Your task to perform on an android device: Go to display settings Image 0: 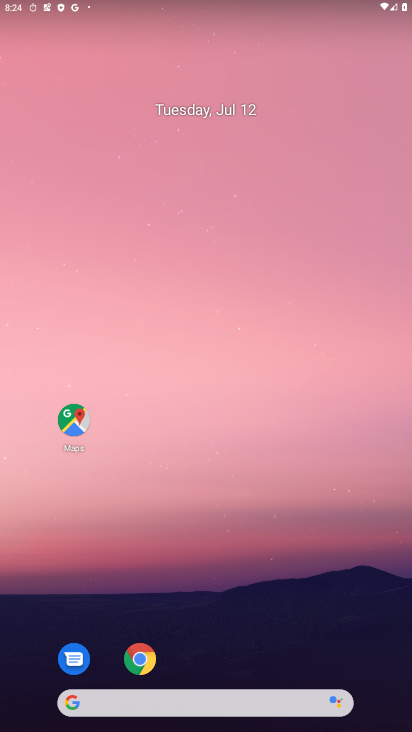
Step 0: drag from (247, 612) to (241, 93)
Your task to perform on an android device: Go to display settings Image 1: 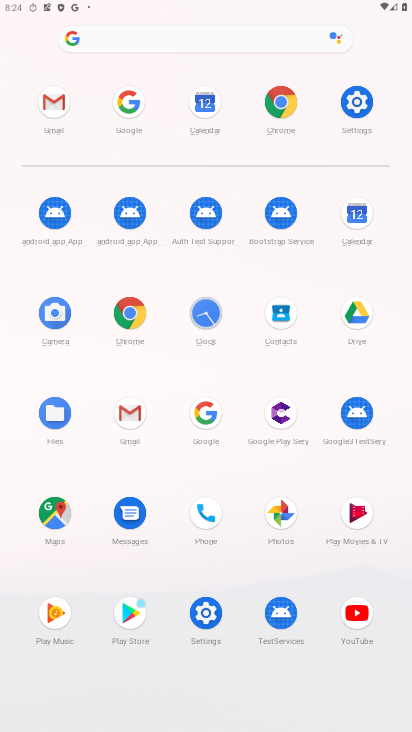
Step 1: click (203, 617)
Your task to perform on an android device: Go to display settings Image 2: 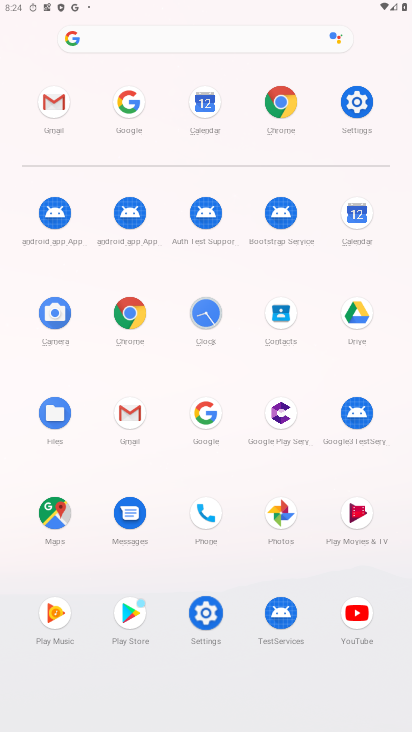
Step 2: click (208, 617)
Your task to perform on an android device: Go to display settings Image 3: 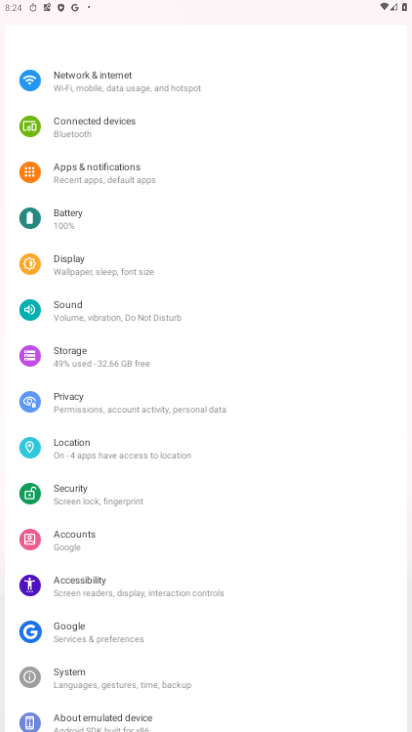
Step 3: click (210, 614)
Your task to perform on an android device: Go to display settings Image 4: 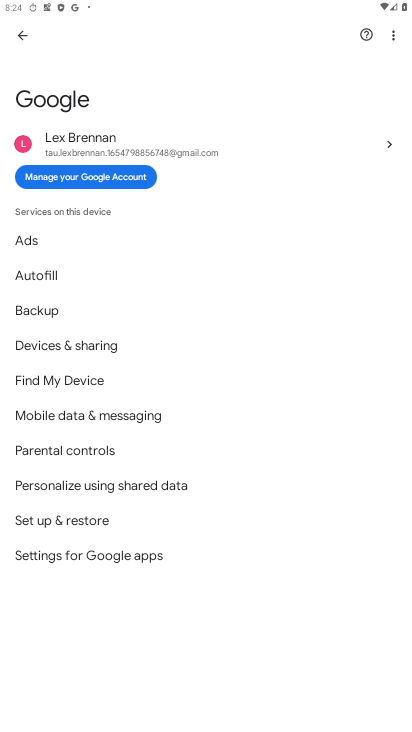
Step 4: click (19, 28)
Your task to perform on an android device: Go to display settings Image 5: 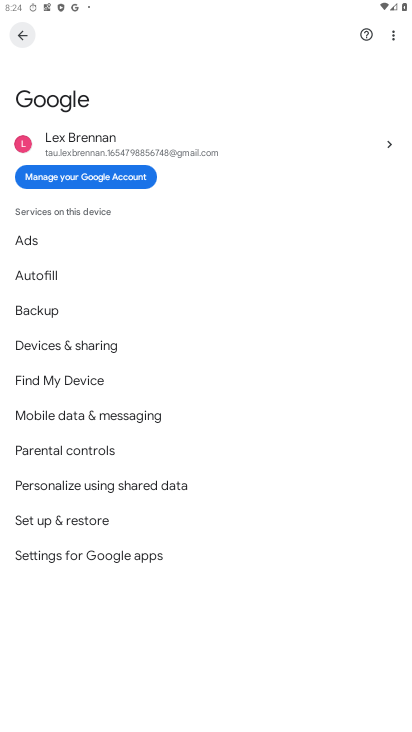
Step 5: click (19, 28)
Your task to perform on an android device: Go to display settings Image 6: 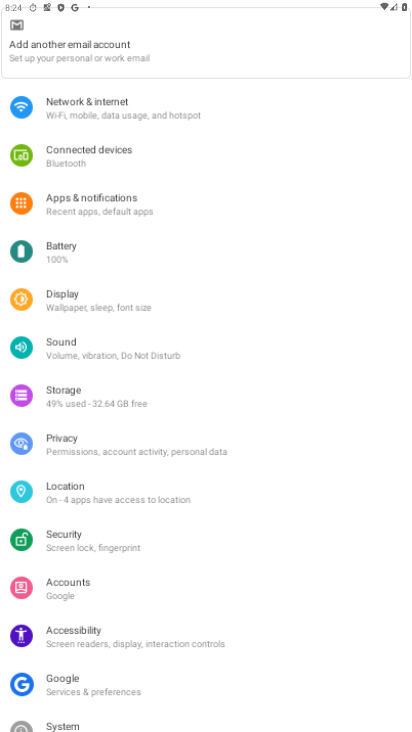
Step 6: click (20, 29)
Your task to perform on an android device: Go to display settings Image 7: 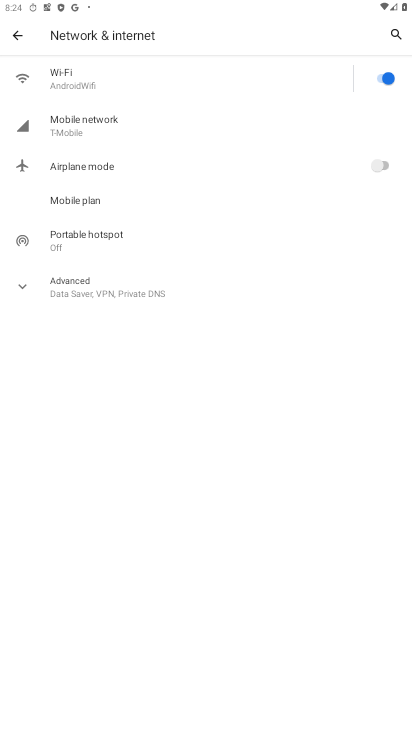
Step 7: click (17, 30)
Your task to perform on an android device: Go to display settings Image 8: 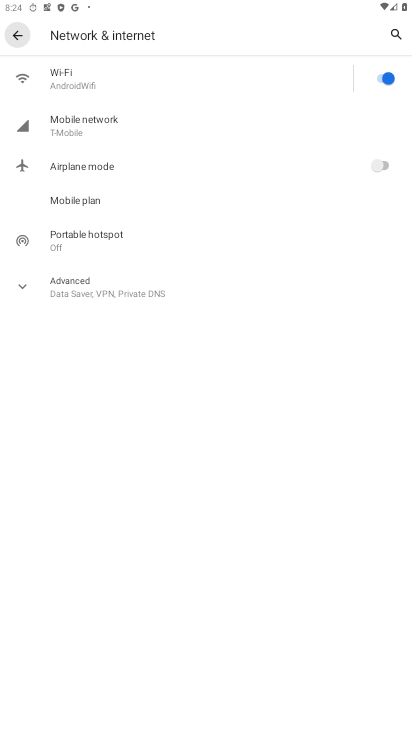
Step 8: click (17, 30)
Your task to perform on an android device: Go to display settings Image 9: 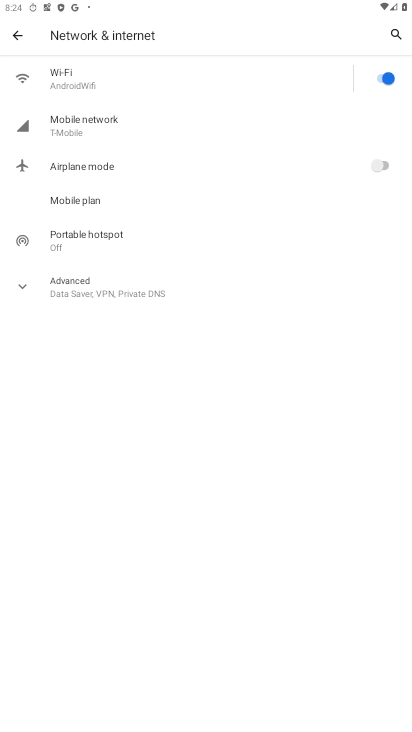
Step 9: click (16, 30)
Your task to perform on an android device: Go to display settings Image 10: 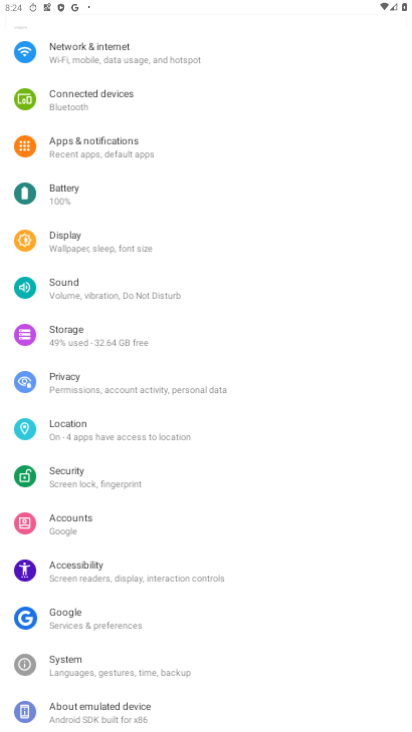
Step 10: click (16, 30)
Your task to perform on an android device: Go to display settings Image 11: 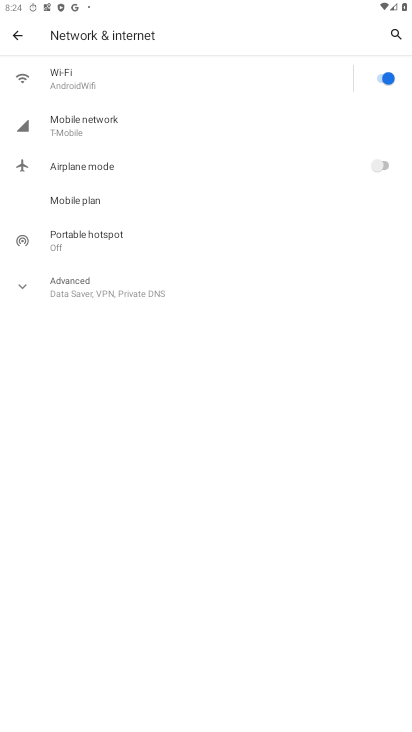
Step 11: click (75, 228)
Your task to perform on an android device: Go to display settings Image 12: 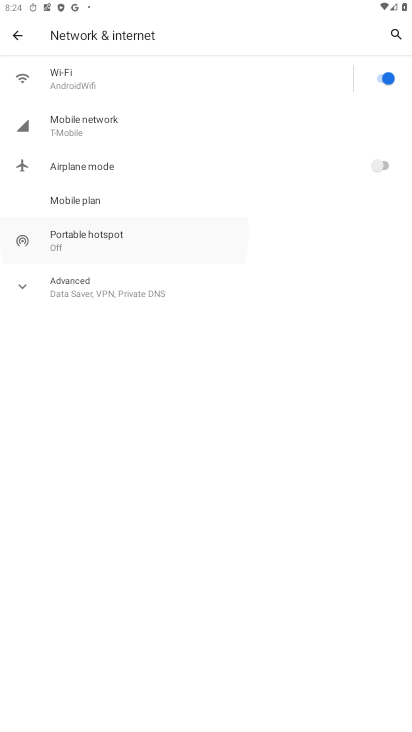
Step 12: click (74, 227)
Your task to perform on an android device: Go to display settings Image 13: 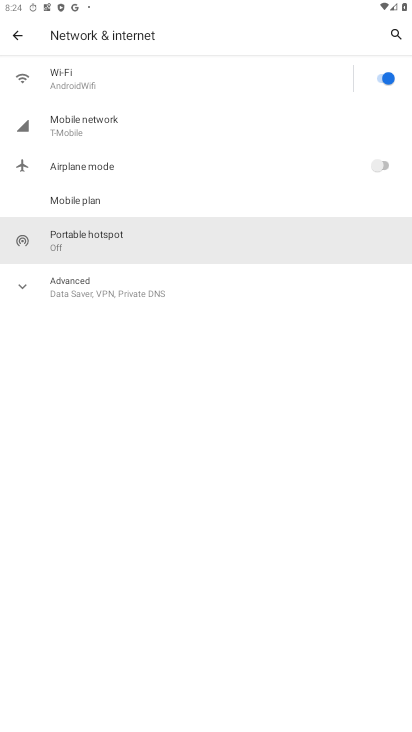
Step 13: click (76, 228)
Your task to perform on an android device: Go to display settings Image 14: 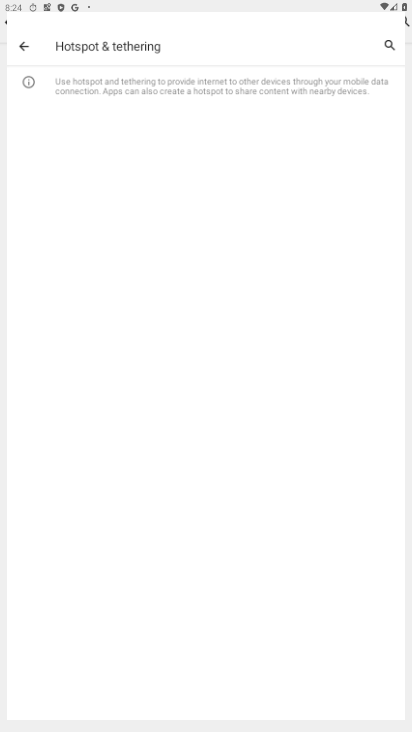
Step 14: click (76, 228)
Your task to perform on an android device: Go to display settings Image 15: 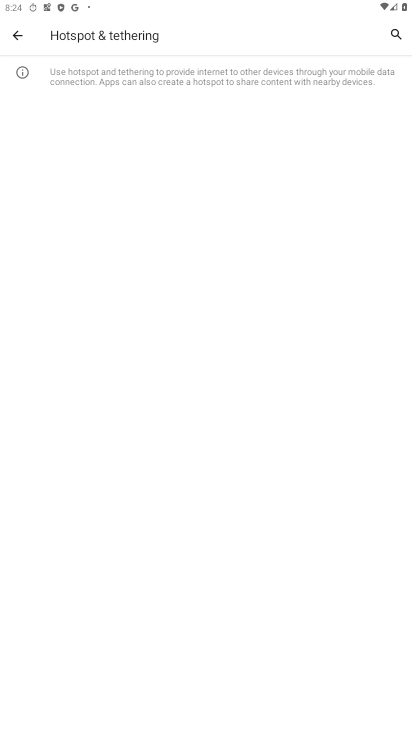
Step 15: click (6, 34)
Your task to perform on an android device: Go to display settings Image 16: 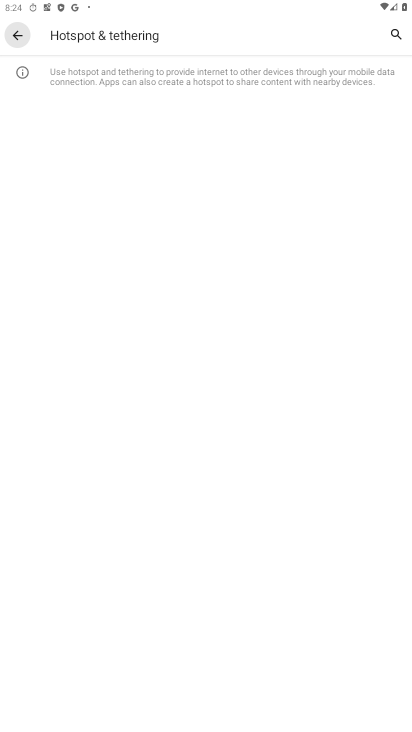
Step 16: click (12, 33)
Your task to perform on an android device: Go to display settings Image 17: 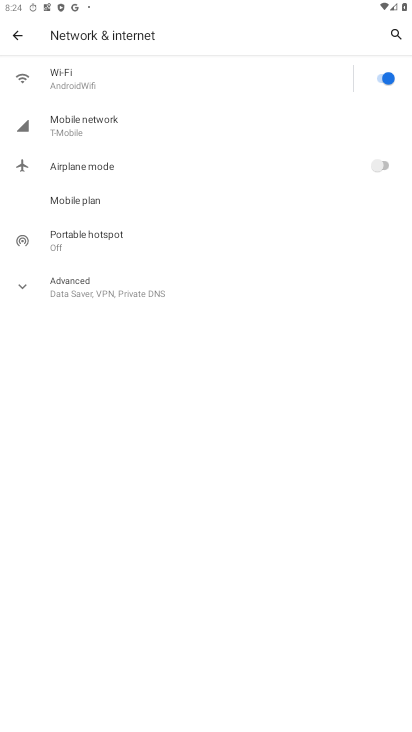
Step 17: click (14, 33)
Your task to perform on an android device: Go to display settings Image 18: 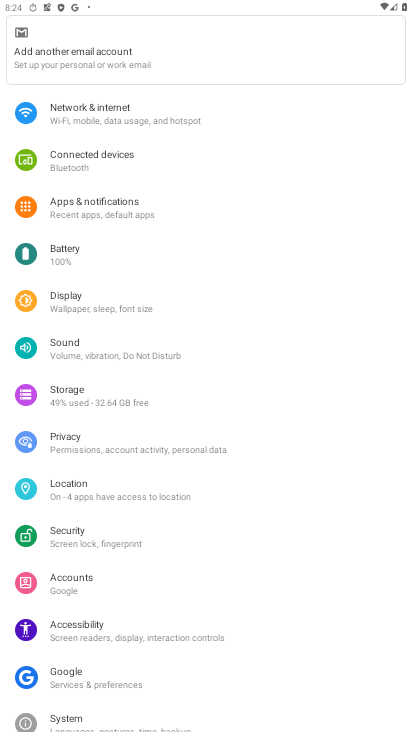
Step 18: click (69, 297)
Your task to perform on an android device: Go to display settings Image 19: 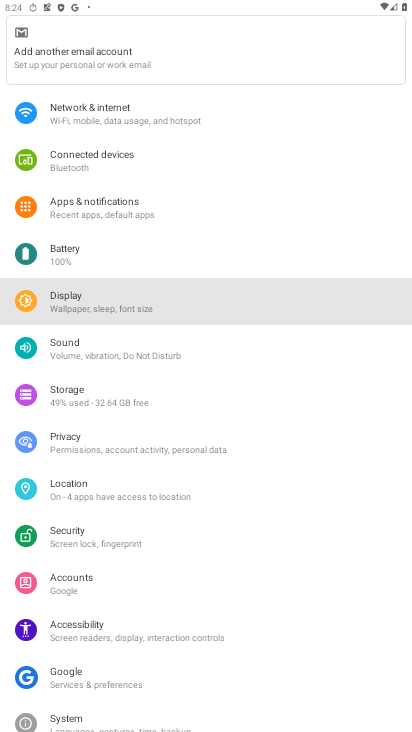
Step 19: click (69, 297)
Your task to perform on an android device: Go to display settings Image 20: 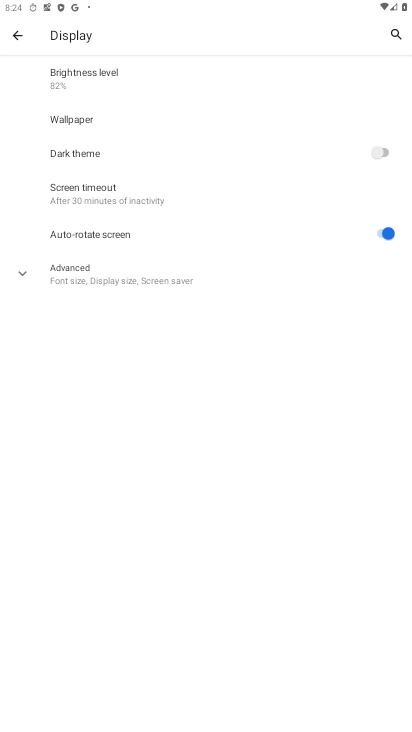
Step 20: task complete